Your task to perform on an android device: find photos in the google photos app Image 0: 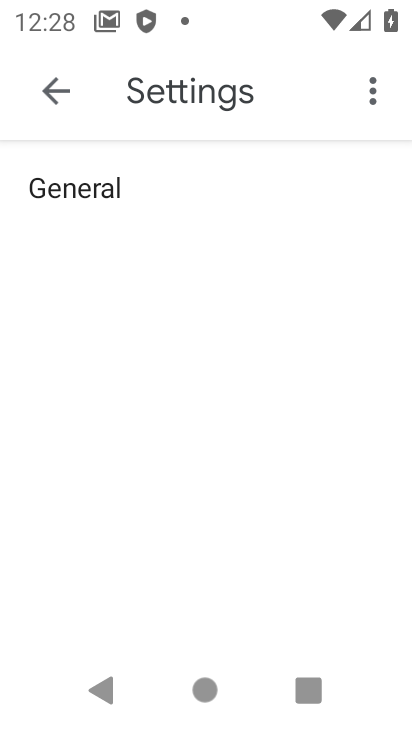
Step 0: press home button
Your task to perform on an android device: find photos in the google photos app Image 1: 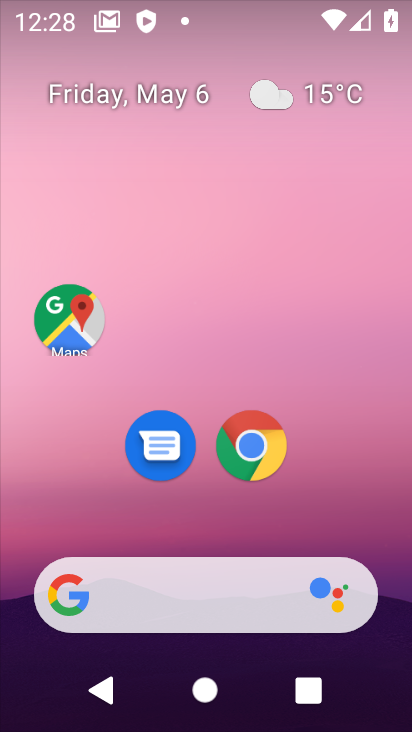
Step 1: drag from (375, 568) to (254, 210)
Your task to perform on an android device: find photos in the google photos app Image 2: 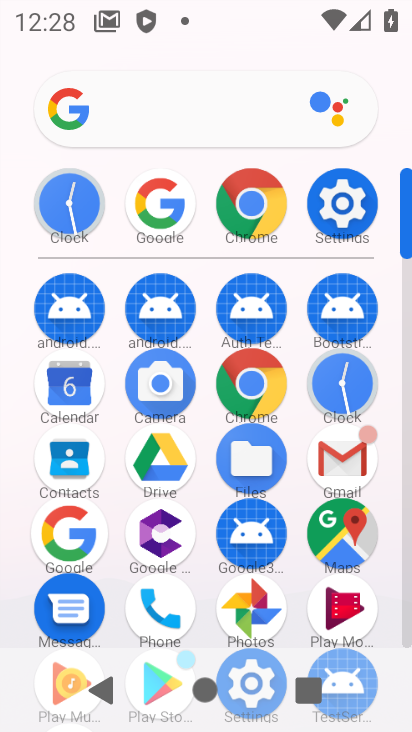
Step 2: click (261, 589)
Your task to perform on an android device: find photos in the google photos app Image 3: 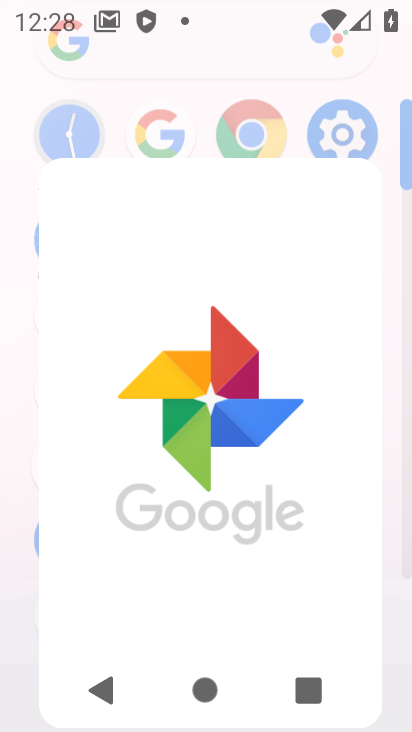
Step 3: drag from (261, 589) to (260, 629)
Your task to perform on an android device: find photos in the google photos app Image 4: 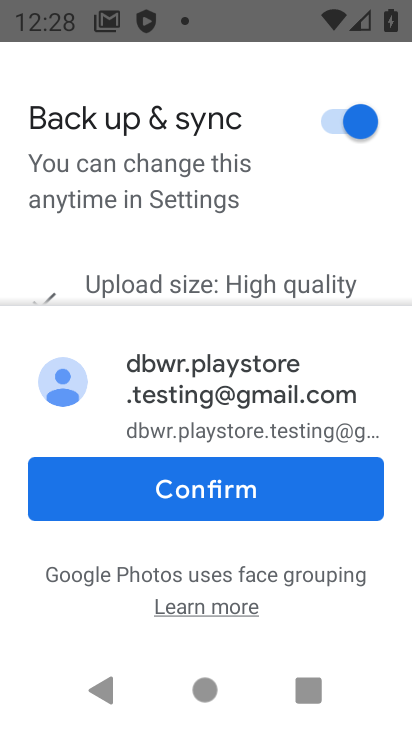
Step 4: click (233, 496)
Your task to perform on an android device: find photos in the google photos app Image 5: 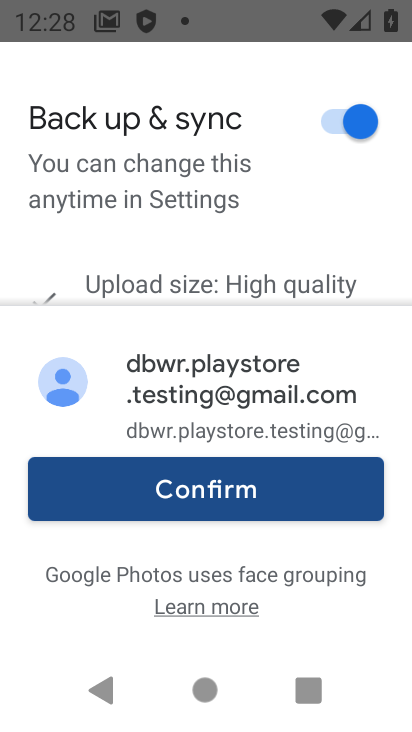
Step 5: click (233, 496)
Your task to perform on an android device: find photos in the google photos app Image 6: 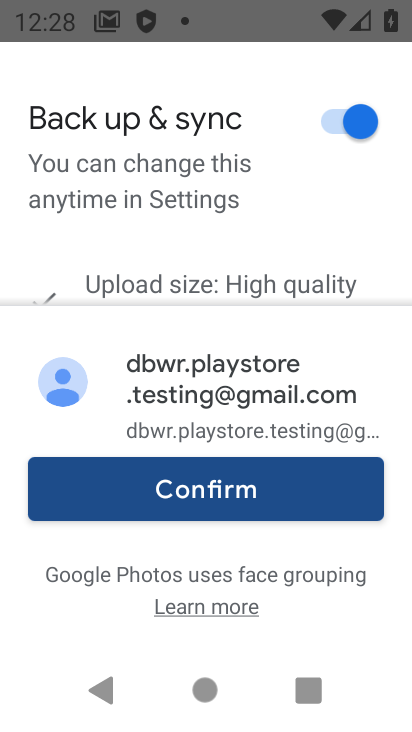
Step 6: click (233, 496)
Your task to perform on an android device: find photos in the google photos app Image 7: 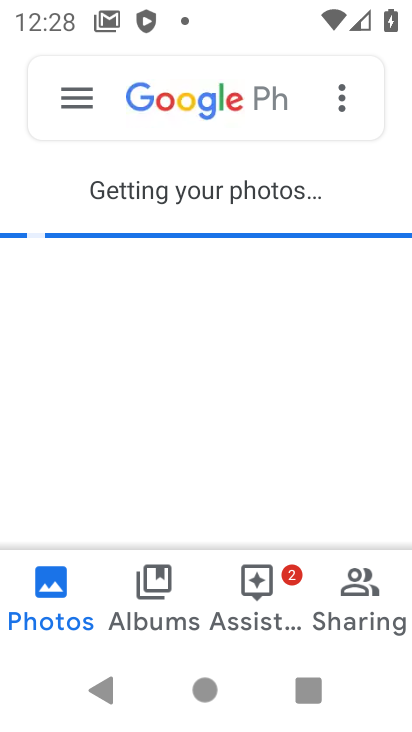
Step 7: click (245, 494)
Your task to perform on an android device: find photos in the google photos app Image 8: 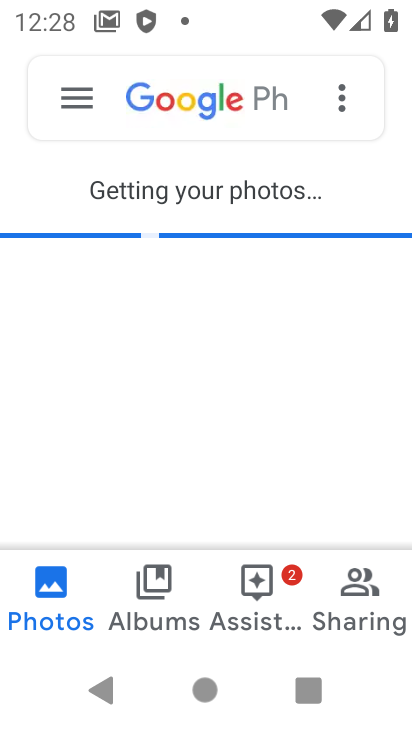
Step 8: click (244, 496)
Your task to perform on an android device: find photos in the google photos app Image 9: 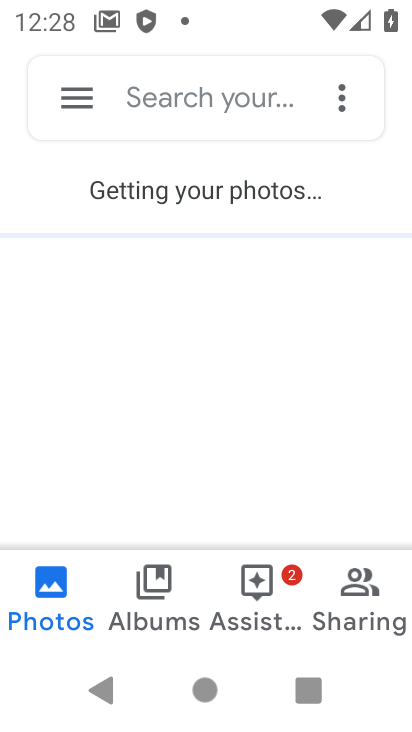
Step 9: task complete